Your task to perform on an android device: See recent photos Image 0: 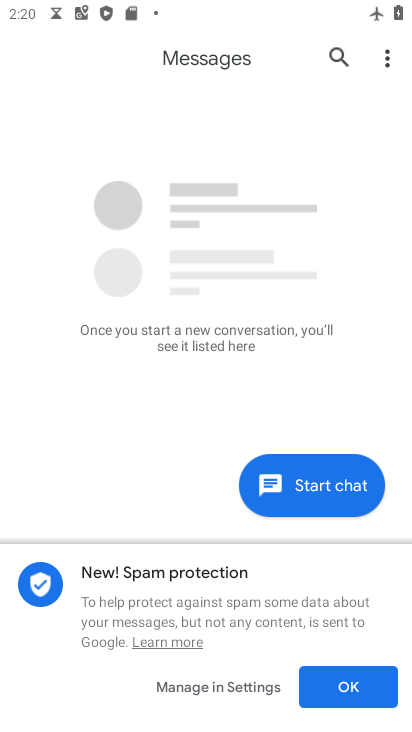
Step 0: press home button
Your task to perform on an android device: See recent photos Image 1: 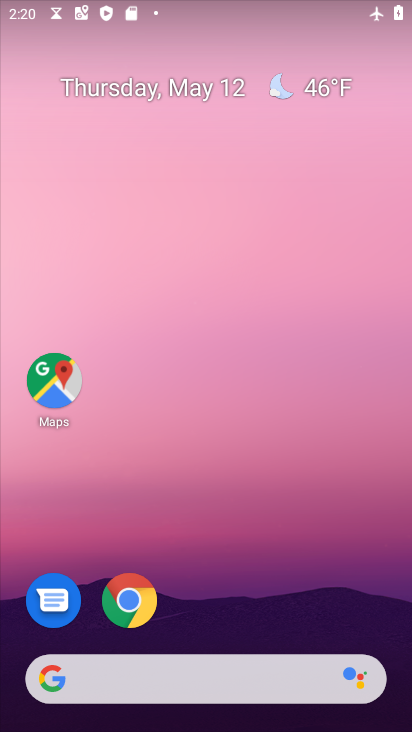
Step 1: drag from (300, 604) to (305, 65)
Your task to perform on an android device: See recent photos Image 2: 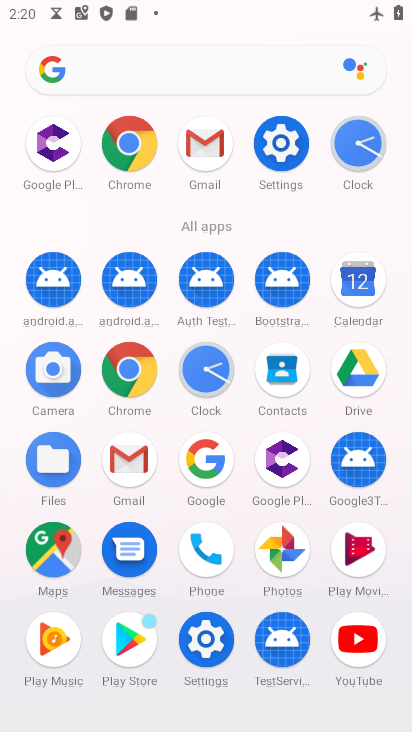
Step 2: click (278, 563)
Your task to perform on an android device: See recent photos Image 3: 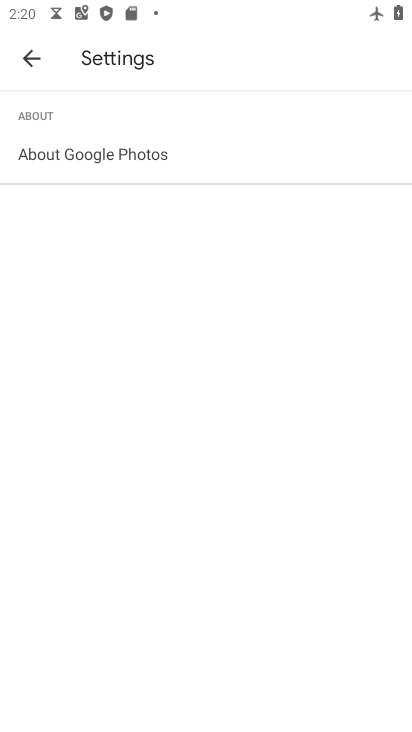
Step 3: click (42, 64)
Your task to perform on an android device: See recent photos Image 4: 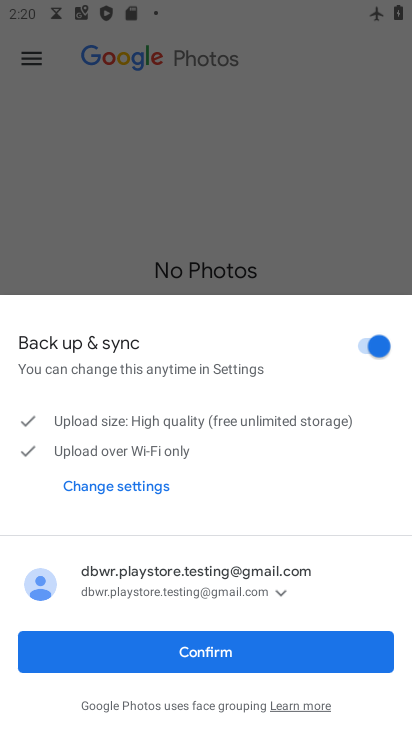
Step 4: click (205, 663)
Your task to perform on an android device: See recent photos Image 5: 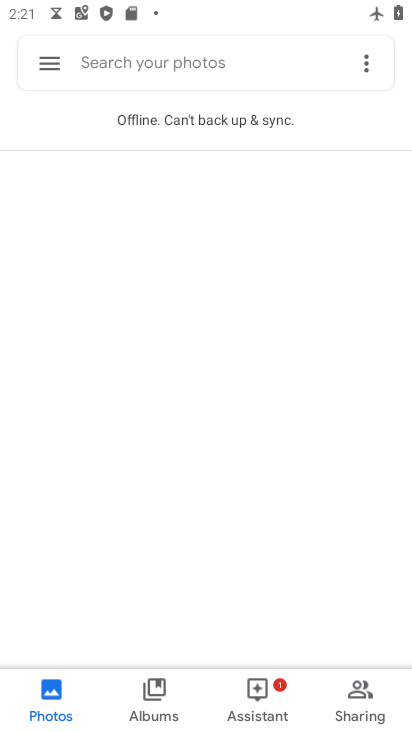
Step 5: click (196, 171)
Your task to perform on an android device: See recent photos Image 6: 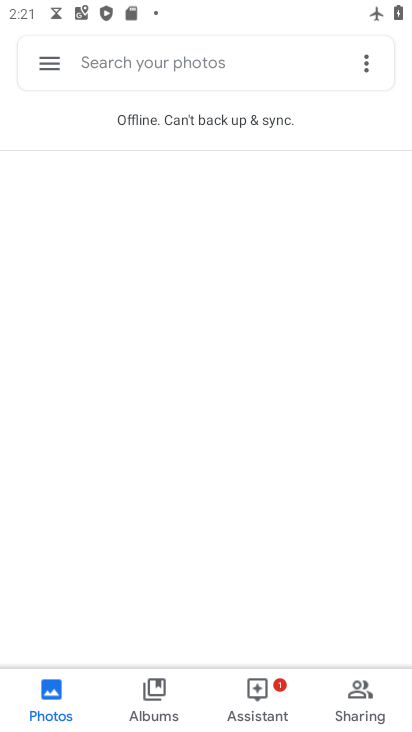
Step 6: task complete